Your task to perform on an android device: open app "Fetch Rewards" Image 0: 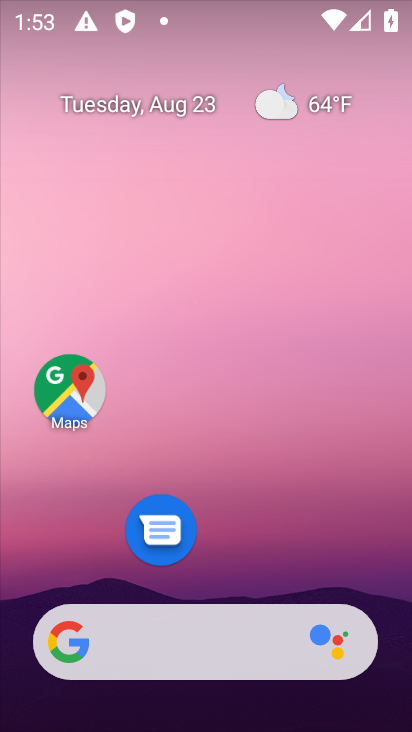
Step 0: drag from (311, 192) to (375, 34)
Your task to perform on an android device: open app "Fetch Rewards" Image 1: 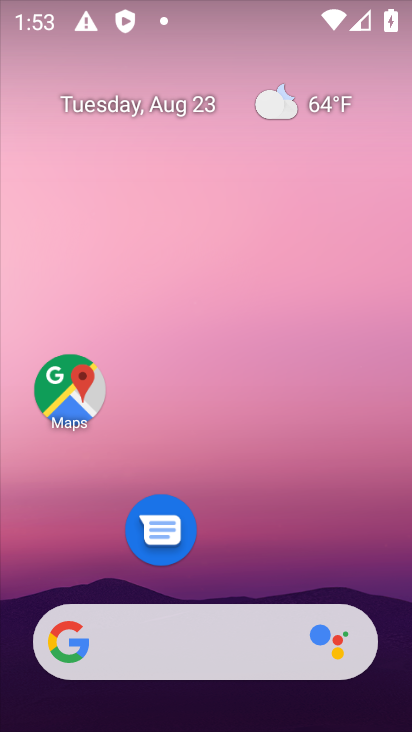
Step 1: drag from (183, 613) to (319, 61)
Your task to perform on an android device: open app "Fetch Rewards" Image 2: 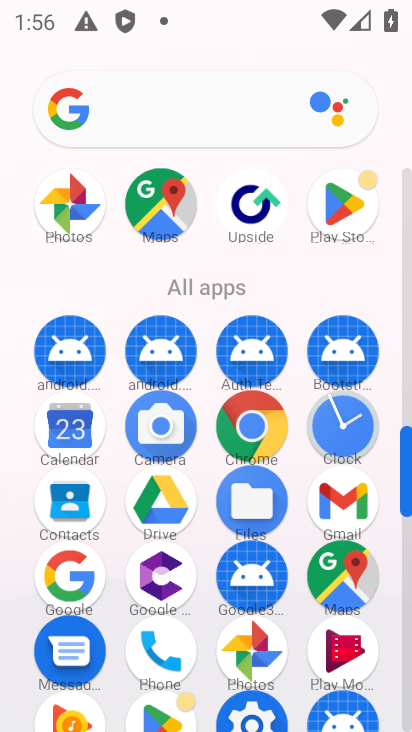
Step 2: click (332, 204)
Your task to perform on an android device: open app "Fetch Rewards" Image 3: 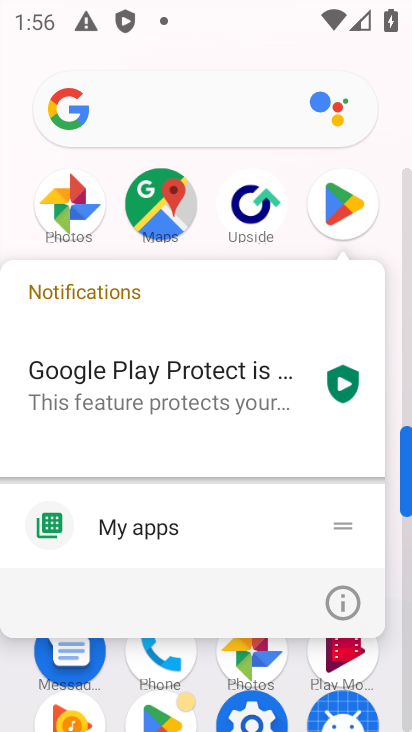
Step 3: click (331, 204)
Your task to perform on an android device: open app "Fetch Rewards" Image 4: 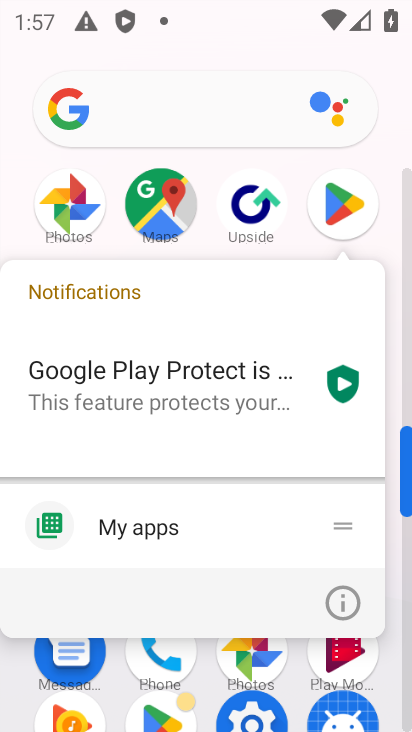
Step 4: click (325, 213)
Your task to perform on an android device: open app "Fetch Rewards" Image 5: 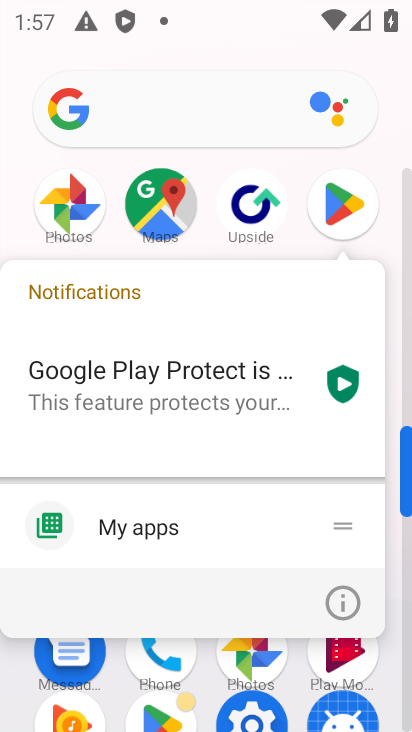
Step 5: click (335, 216)
Your task to perform on an android device: open app "Fetch Rewards" Image 6: 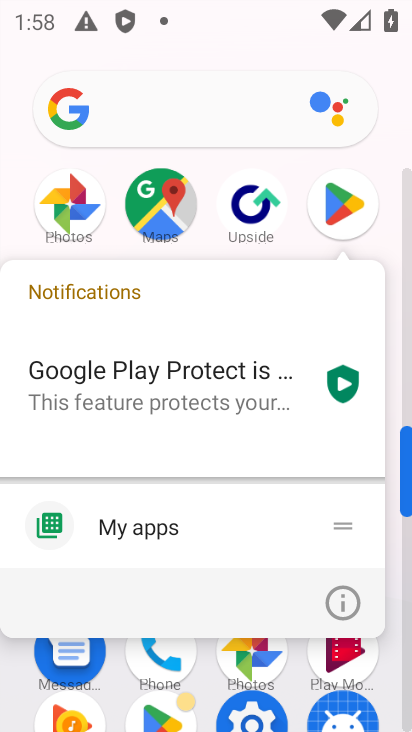
Step 6: click (349, 196)
Your task to perform on an android device: open app "Fetch Rewards" Image 7: 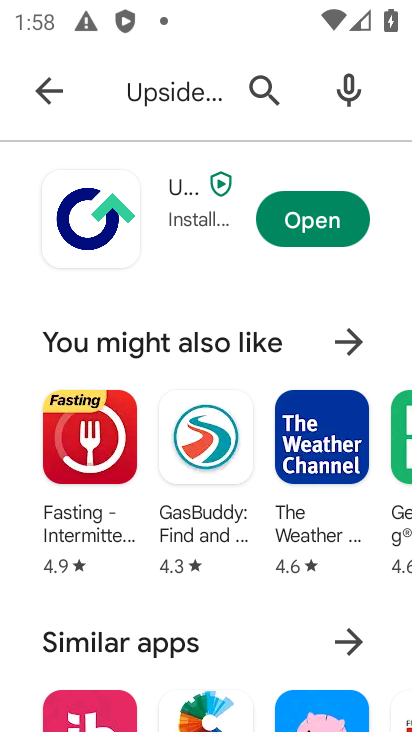
Step 7: press back button
Your task to perform on an android device: open app "Fetch Rewards" Image 8: 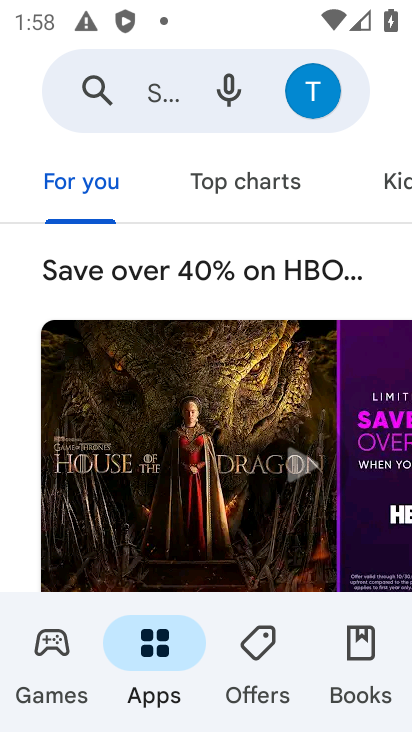
Step 8: click (156, 73)
Your task to perform on an android device: open app "Fetch Rewards" Image 9: 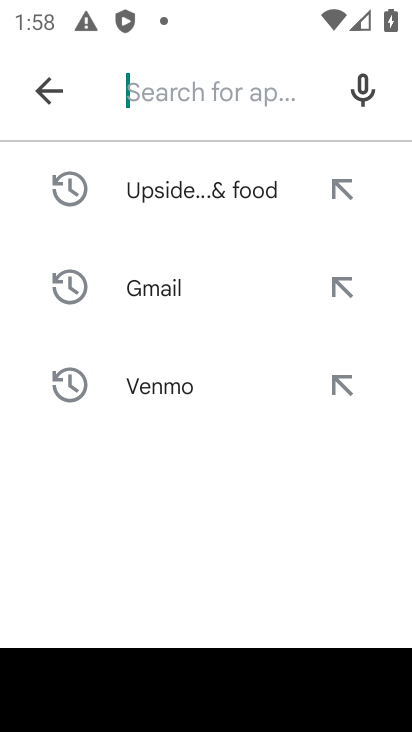
Step 9: press enter
Your task to perform on an android device: open app "Fetch Rewards" Image 10: 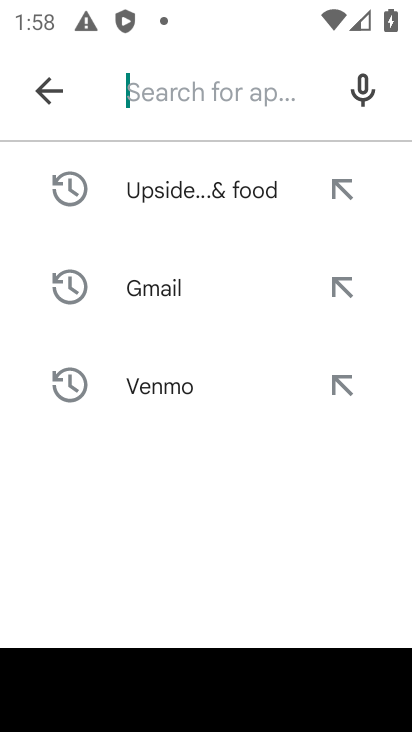
Step 10: type "Fetch Rewards"
Your task to perform on an android device: open app "Fetch Rewards" Image 11: 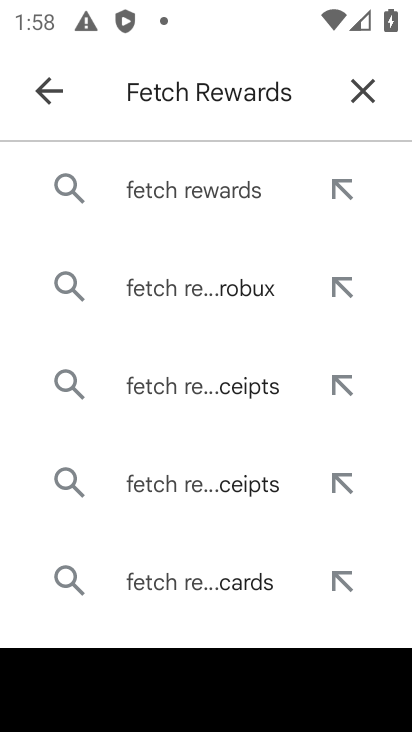
Step 11: click (141, 193)
Your task to perform on an android device: open app "Fetch Rewards" Image 12: 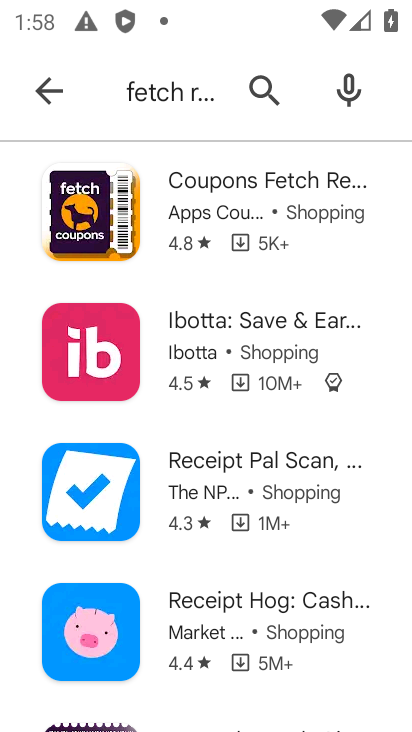
Step 12: task complete